Your task to perform on an android device: turn on data saver in the chrome app Image 0: 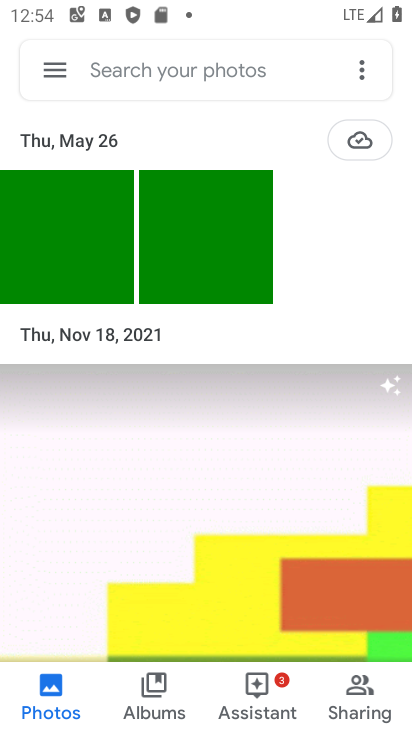
Step 0: press home button
Your task to perform on an android device: turn on data saver in the chrome app Image 1: 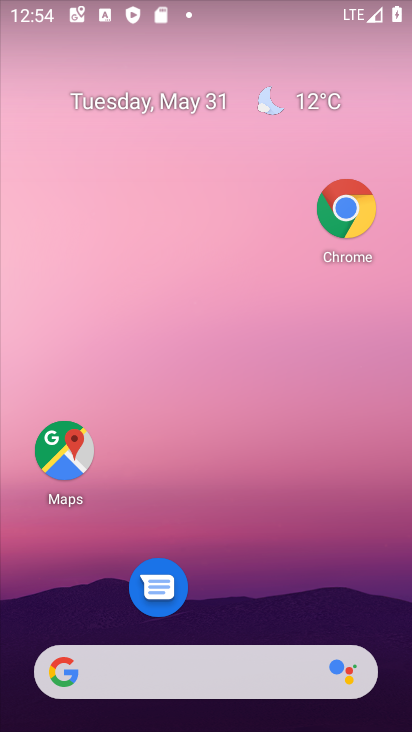
Step 1: click (355, 190)
Your task to perform on an android device: turn on data saver in the chrome app Image 2: 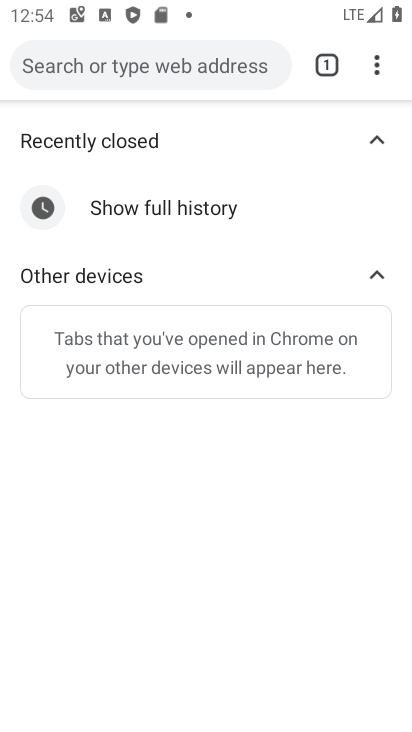
Step 2: click (378, 56)
Your task to perform on an android device: turn on data saver in the chrome app Image 3: 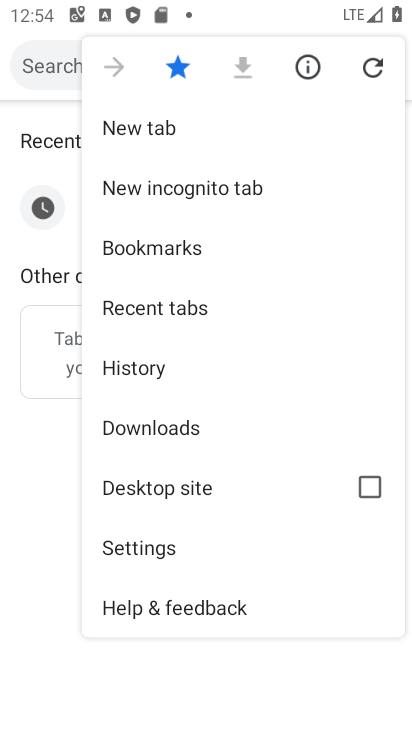
Step 3: click (151, 549)
Your task to perform on an android device: turn on data saver in the chrome app Image 4: 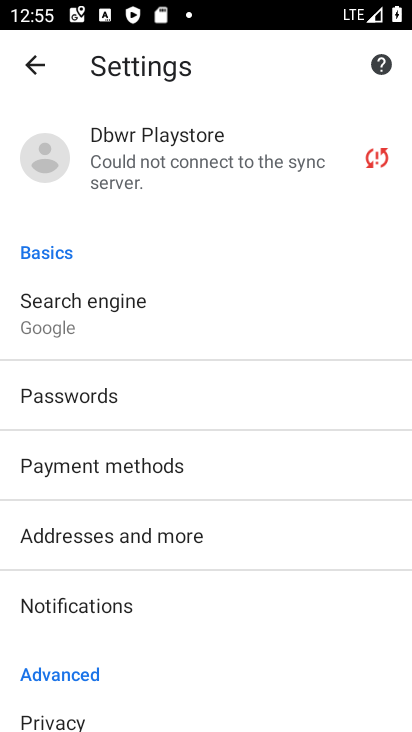
Step 4: drag from (151, 549) to (199, 232)
Your task to perform on an android device: turn on data saver in the chrome app Image 5: 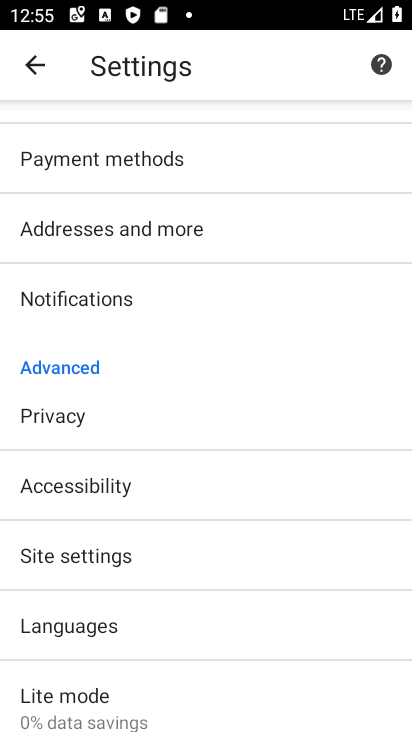
Step 5: click (155, 566)
Your task to perform on an android device: turn on data saver in the chrome app Image 6: 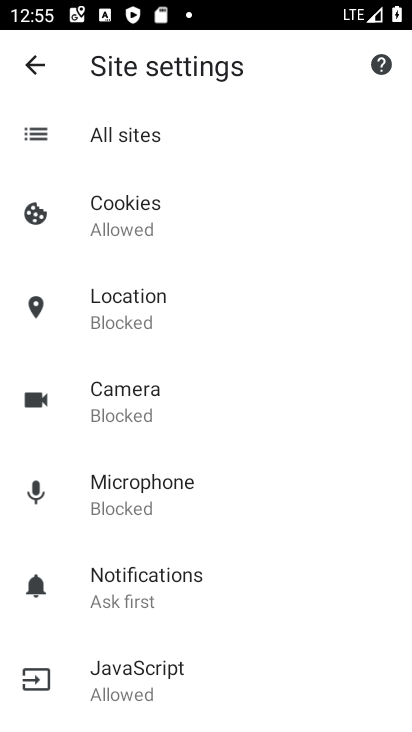
Step 6: click (65, 66)
Your task to perform on an android device: turn on data saver in the chrome app Image 7: 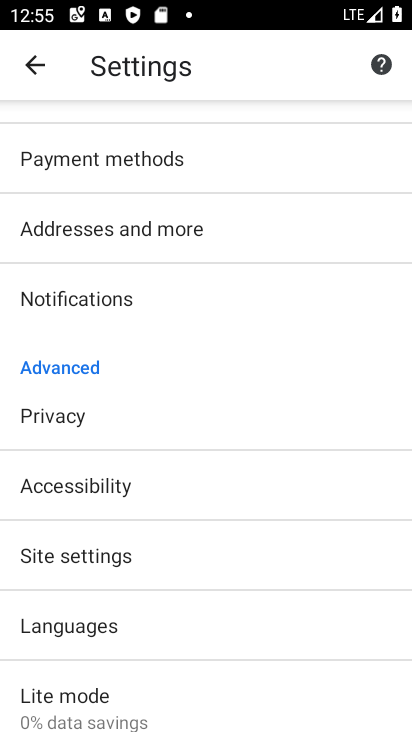
Step 7: click (195, 692)
Your task to perform on an android device: turn on data saver in the chrome app Image 8: 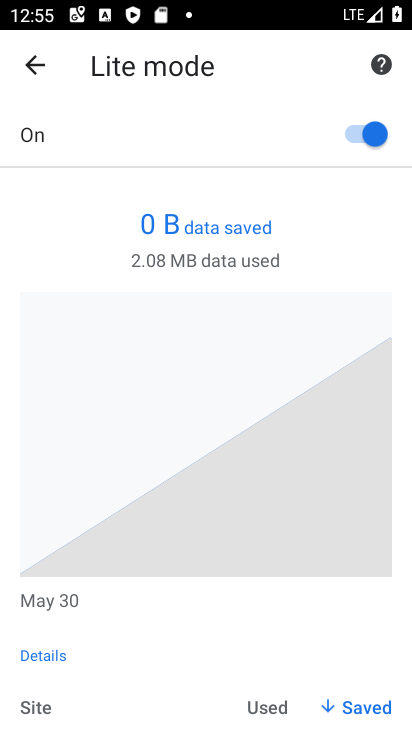
Step 8: task complete